Your task to perform on an android device: turn pop-ups on in chrome Image 0: 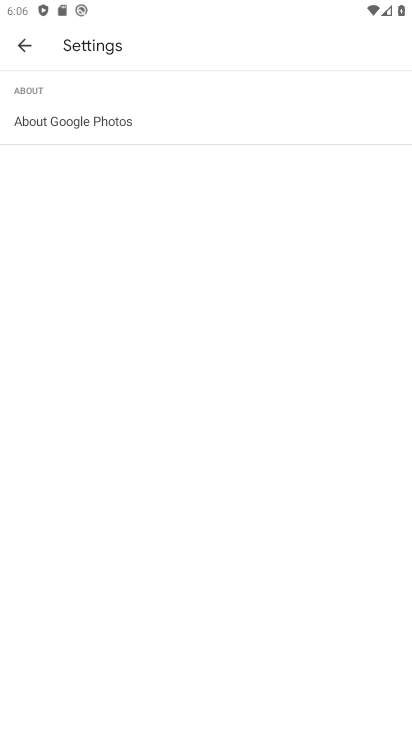
Step 0: press home button
Your task to perform on an android device: turn pop-ups on in chrome Image 1: 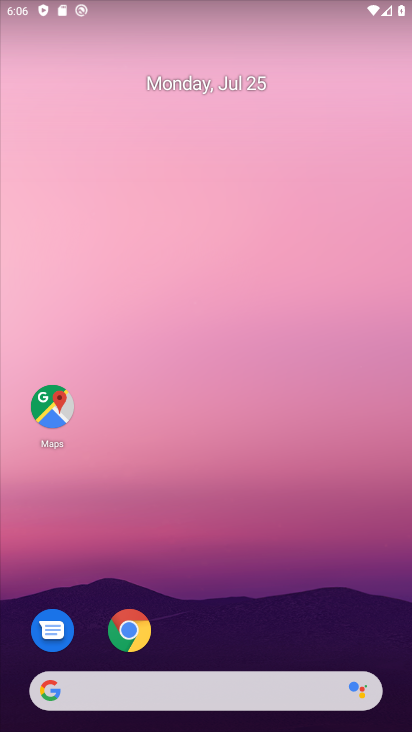
Step 1: click (128, 630)
Your task to perform on an android device: turn pop-ups on in chrome Image 2: 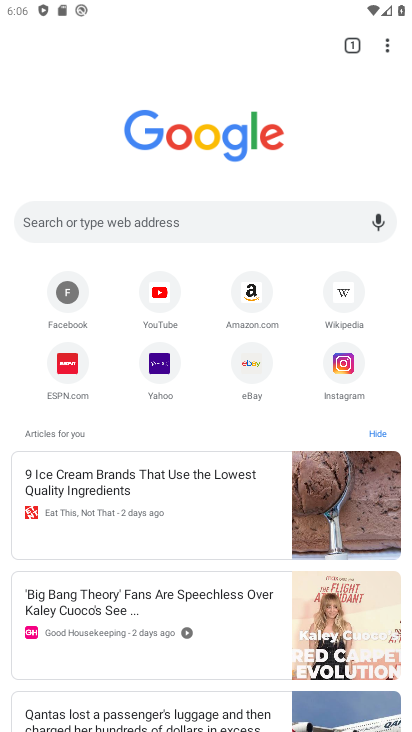
Step 2: click (387, 44)
Your task to perform on an android device: turn pop-ups on in chrome Image 3: 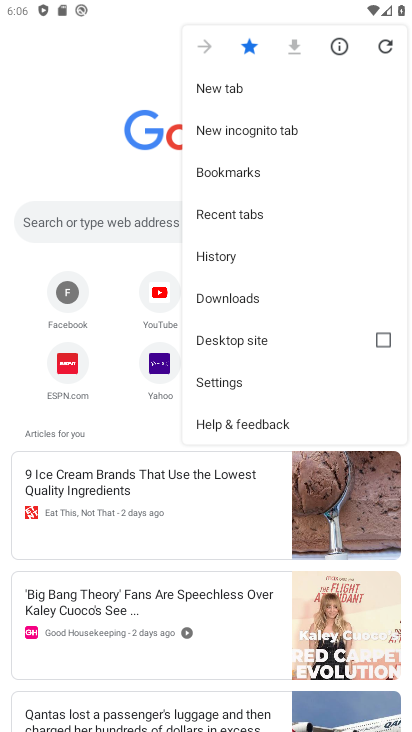
Step 3: click (223, 382)
Your task to perform on an android device: turn pop-ups on in chrome Image 4: 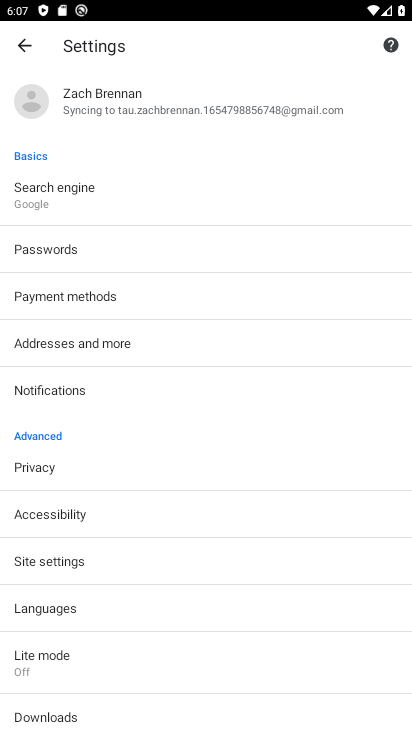
Step 4: click (59, 563)
Your task to perform on an android device: turn pop-ups on in chrome Image 5: 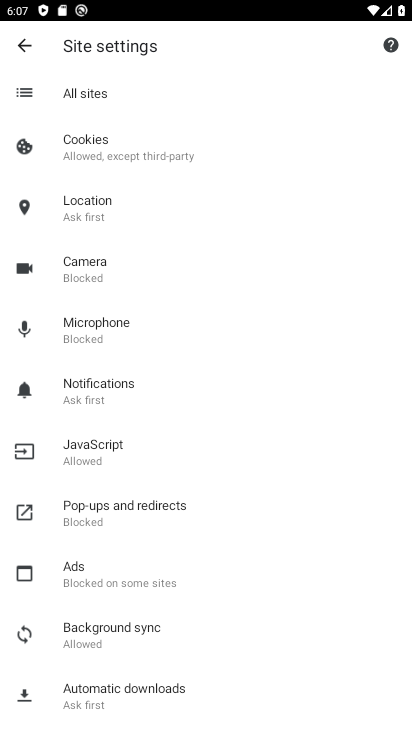
Step 5: click (102, 506)
Your task to perform on an android device: turn pop-ups on in chrome Image 6: 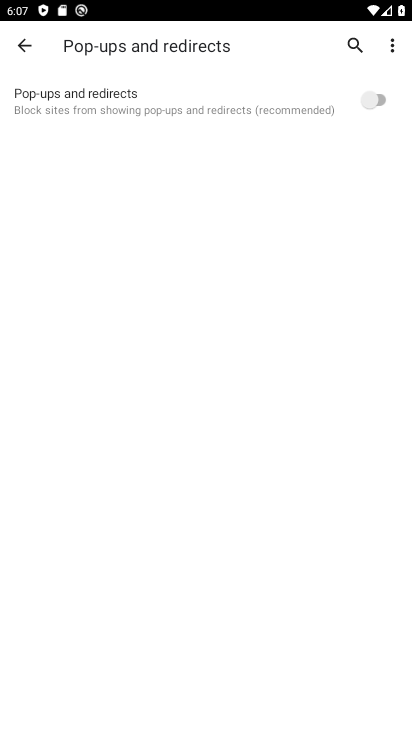
Step 6: click (372, 102)
Your task to perform on an android device: turn pop-ups on in chrome Image 7: 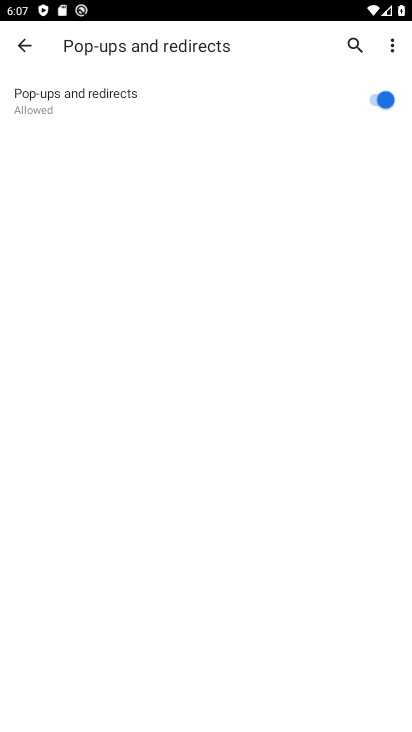
Step 7: task complete